Your task to perform on an android device: turn smart compose on in the gmail app Image 0: 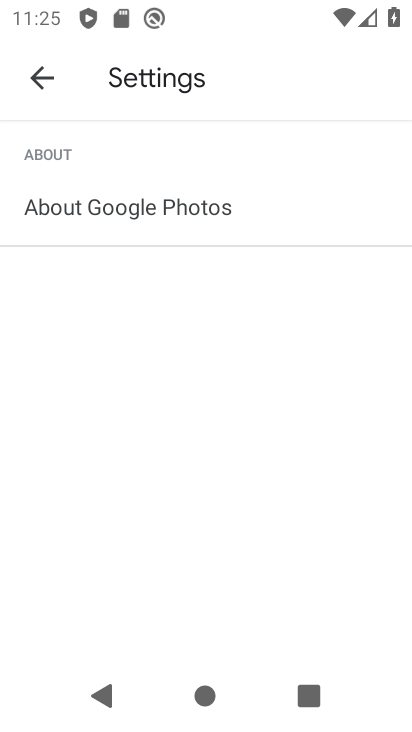
Step 0: press home button
Your task to perform on an android device: turn smart compose on in the gmail app Image 1: 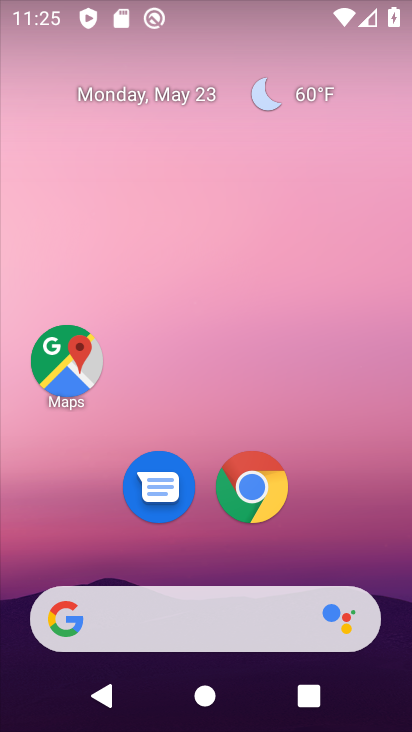
Step 1: drag from (89, 587) to (146, 144)
Your task to perform on an android device: turn smart compose on in the gmail app Image 2: 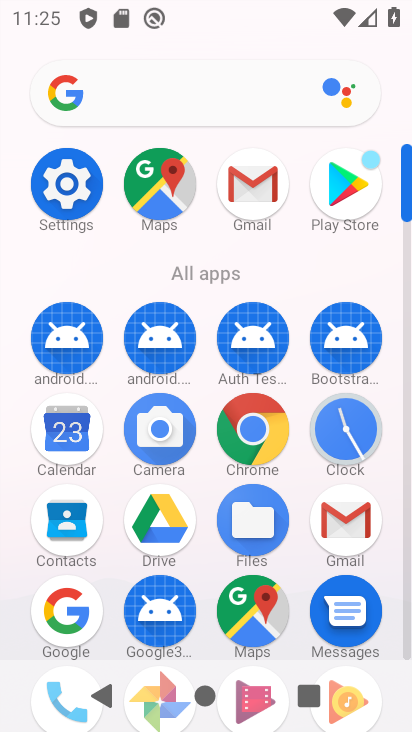
Step 2: click (348, 519)
Your task to perform on an android device: turn smart compose on in the gmail app Image 3: 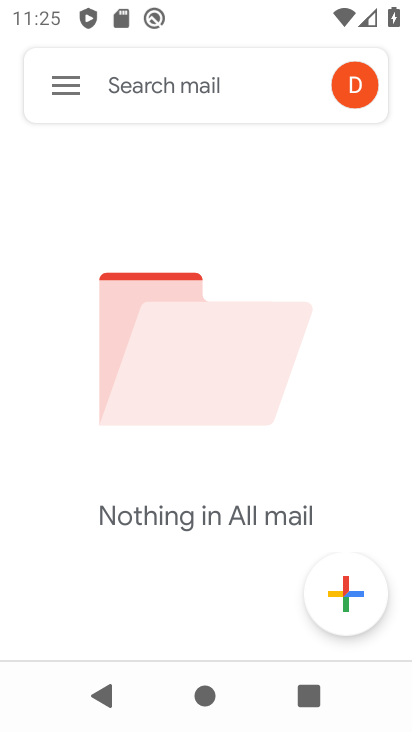
Step 3: click (78, 98)
Your task to perform on an android device: turn smart compose on in the gmail app Image 4: 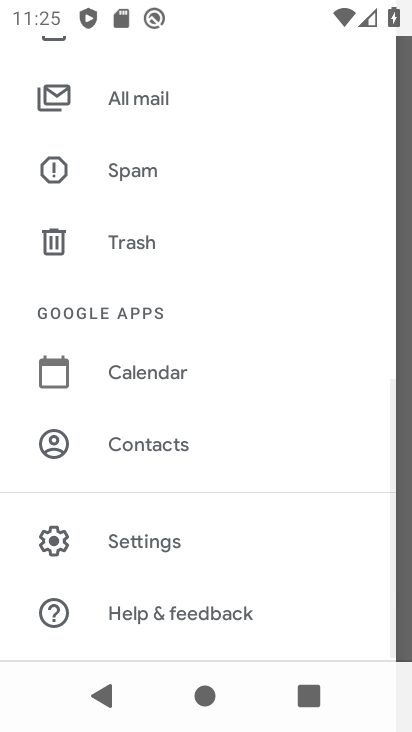
Step 4: click (188, 539)
Your task to perform on an android device: turn smart compose on in the gmail app Image 5: 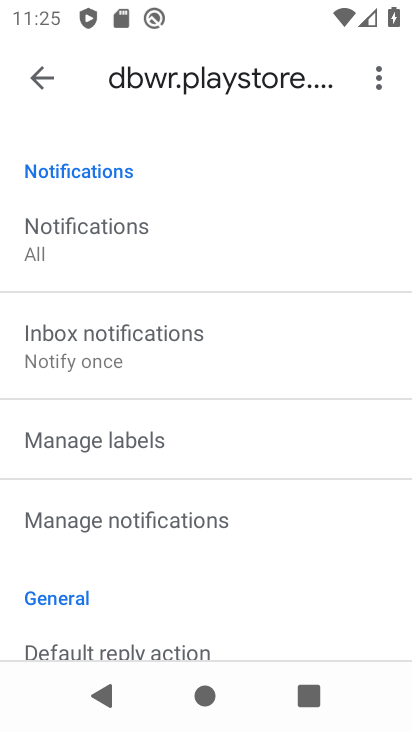
Step 5: task complete